Your task to perform on an android device: Open Yahoo.com Image 0: 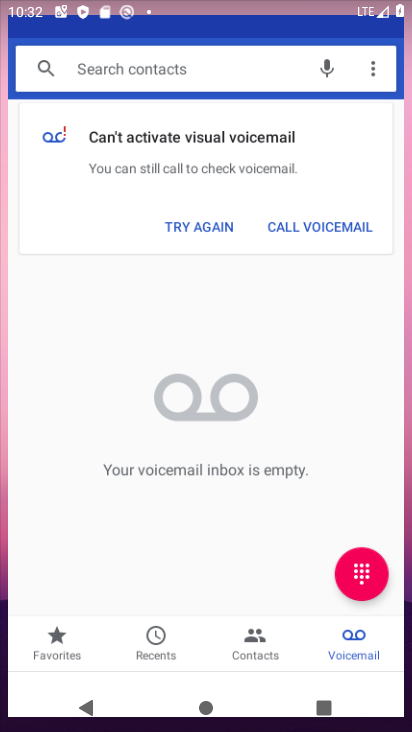
Step 0: drag from (190, 592) to (256, 241)
Your task to perform on an android device: Open Yahoo.com Image 1: 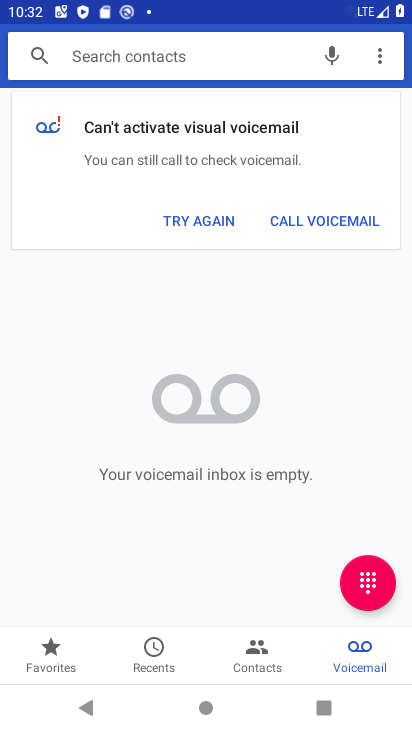
Step 1: press home button
Your task to perform on an android device: Open Yahoo.com Image 2: 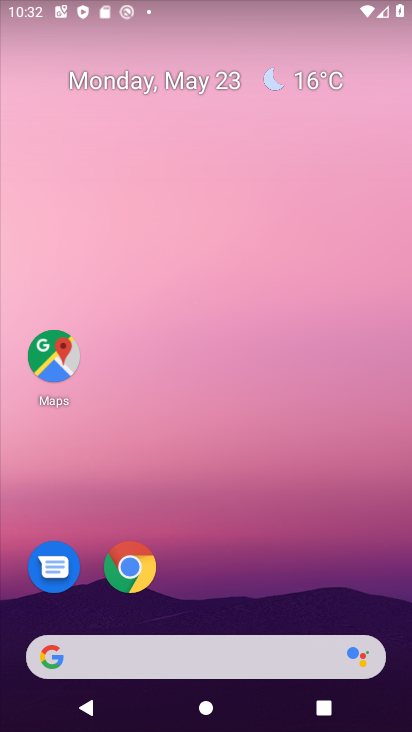
Step 2: drag from (241, 590) to (408, 32)
Your task to perform on an android device: Open Yahoo.com Image 3: 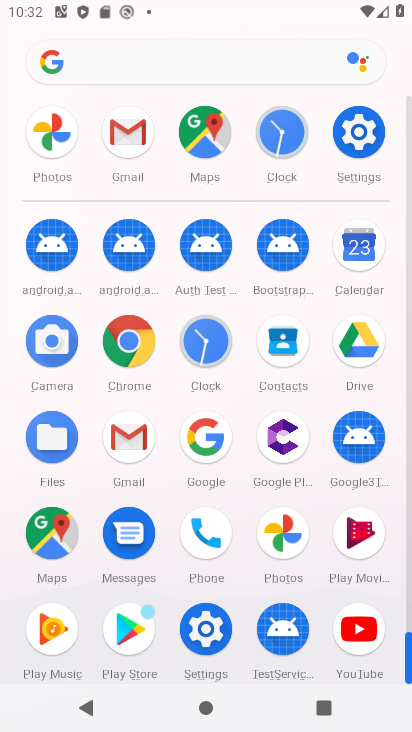
Step 3: click (138, 58)
Your task to perform on an android device: Open Yahoo.com Image 4: 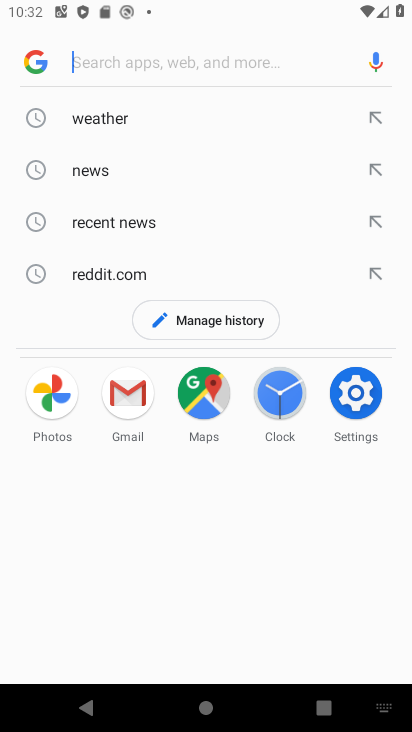
Step 4: type "yahoo.com"
Your task to perform on an android device: Open Yahoo.com Image 5: 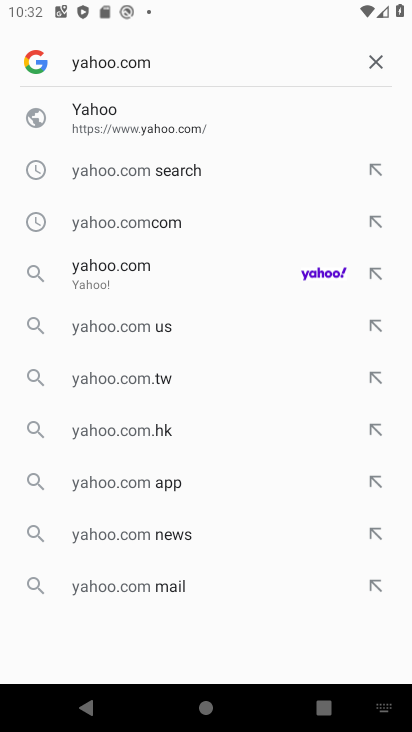
Step 5: click (103, 106)
Your task to perform on an android device: Open Yahoo.com Image 6: 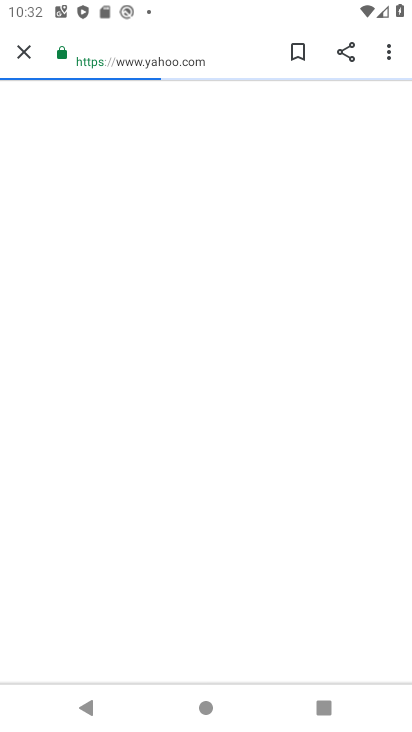
Step 6: task complete